Your task to perform on an android device: Open calendar and show me the second week of next month Image 0: 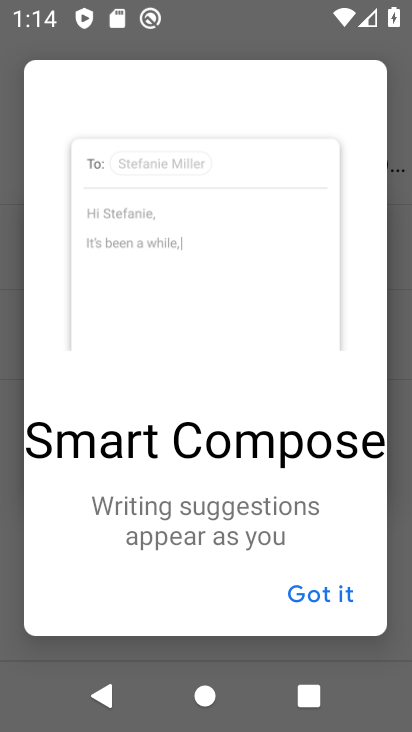
Step 0: press home button
Your task to perform on an android device: Open calendar and show me the second week of next month Image 1: 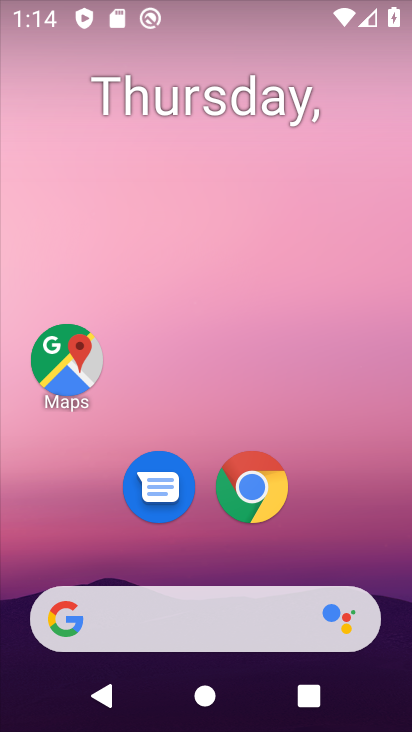
Step 1: drag from (239, 555) to (119, 104)
Your task to perform on an android device: Open calendar and show me the second week of next month Image 2: 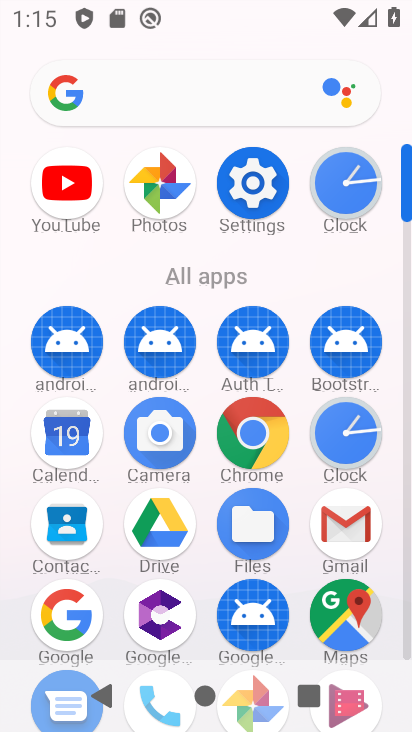
Step 2: click (56, 436)
Your task to perform on an android device: Open calendar and show me the second week of next month Image 3: 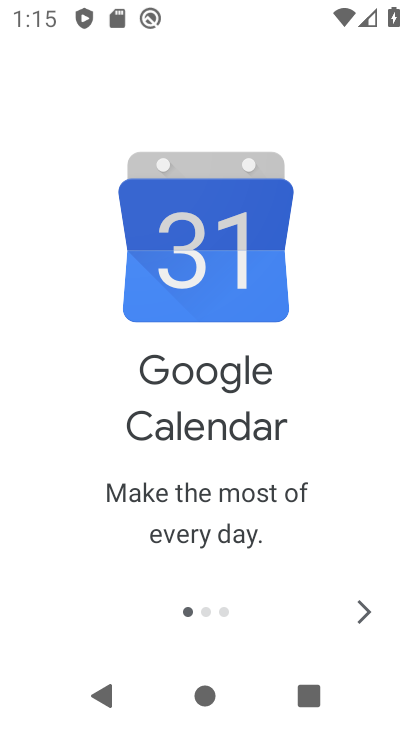
Step 3: click (352, 611)
Your task to perform on an android device: Open calendar and show me the second week of next month Image 4: 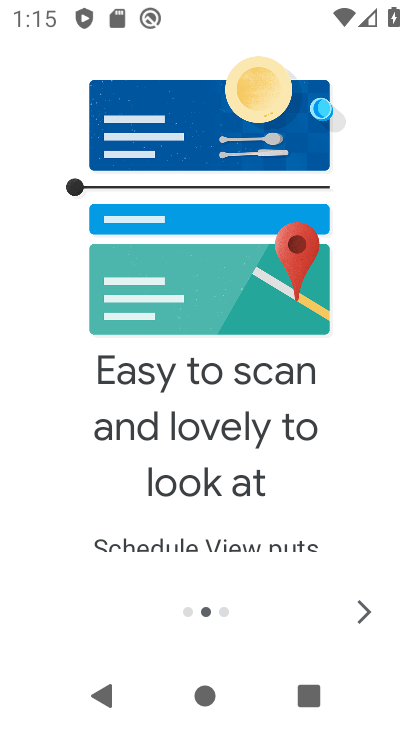
Step 4: click (360, 616)
Your task to perform on an android device: Open calendar and show me the second week of next month Image 5: 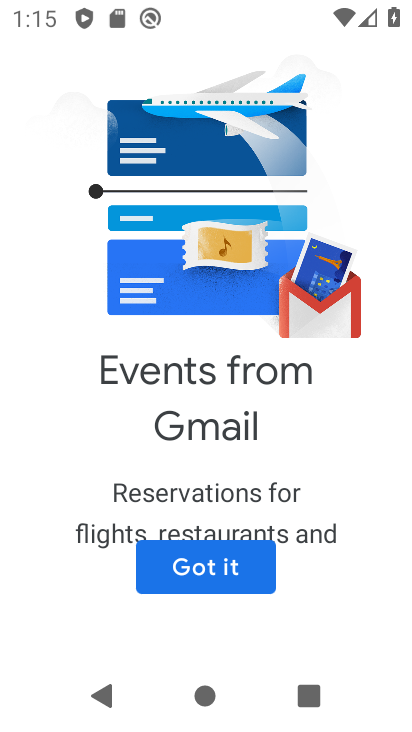
Step 5: click (257, 549)
Your task to perform on an android device: Open calendar and show me the second week of next month Image 6: 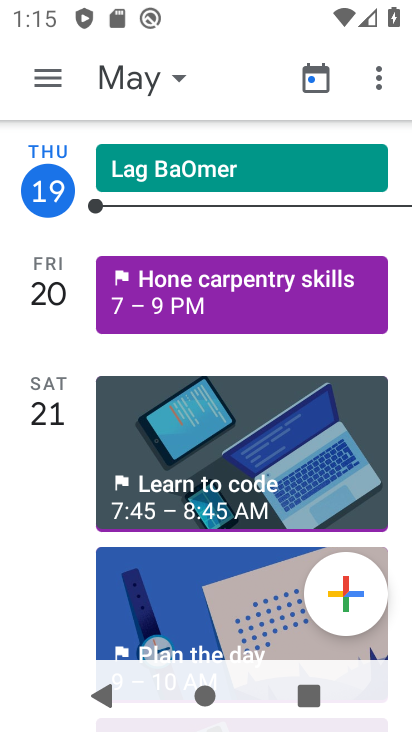
Step 6: click (188, 84)
Your task to perform on an android device: Open calendar and show me the second week of next month Image 7: 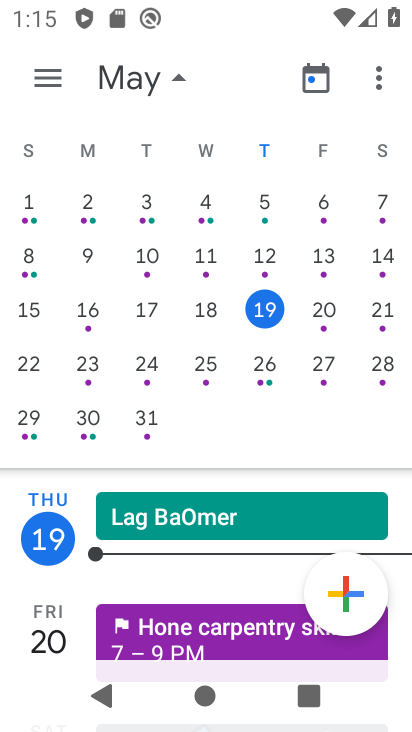
Step 7: drag from (392, 288) to (0, 229)
Your task to perform on an android device: Open calendar and show me the second week of next month Image 8: 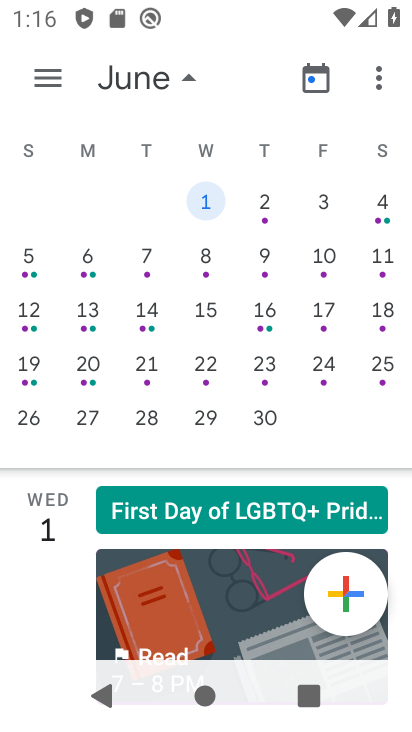
Step 8: click (46, 91)
Your task to perform on an android device: Open calendar and show me the second week of next month Image 9: 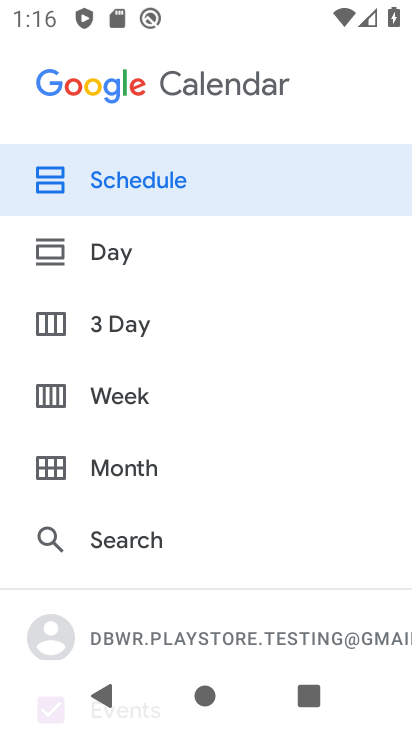
Step 9: click (172, 417)
Your task to perform on an android device: Open calendar and show me the second week of next month Image 10: 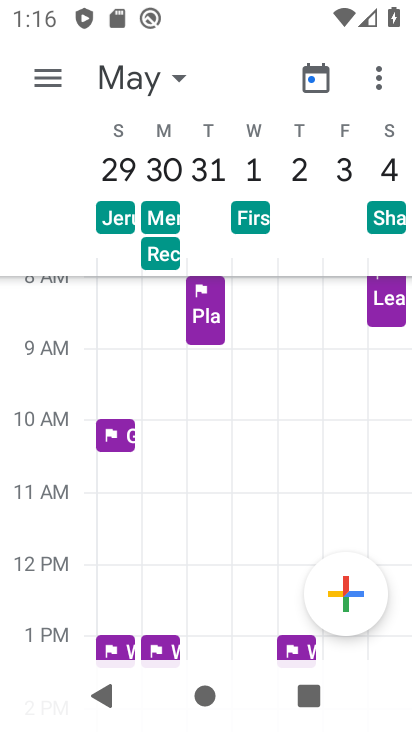
Step 10: task complete